Your task to perform on an android device: open app "The Home Depot" Image 0: 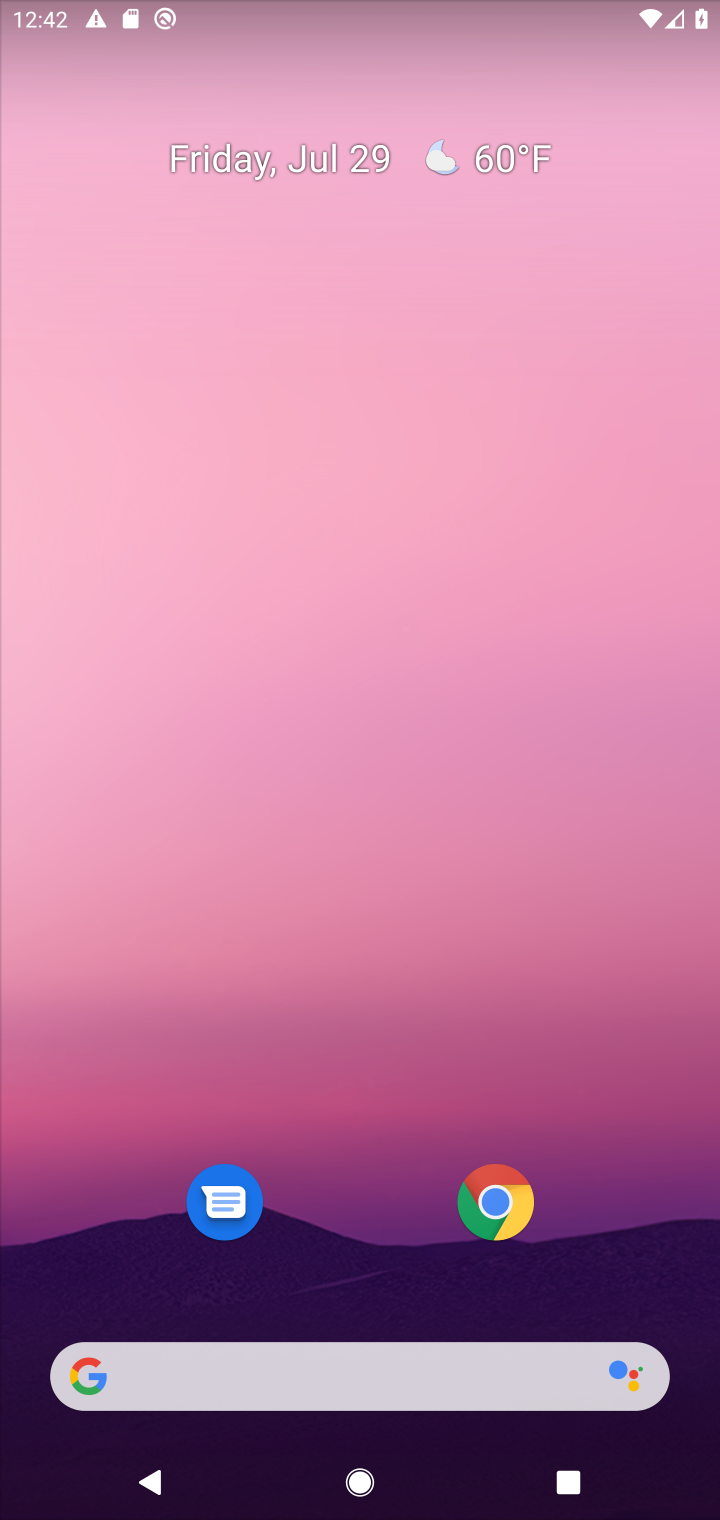
Step 0: click (212, 1377)
Your task to perform on an android device: open app "The Home Depot" Image 1: 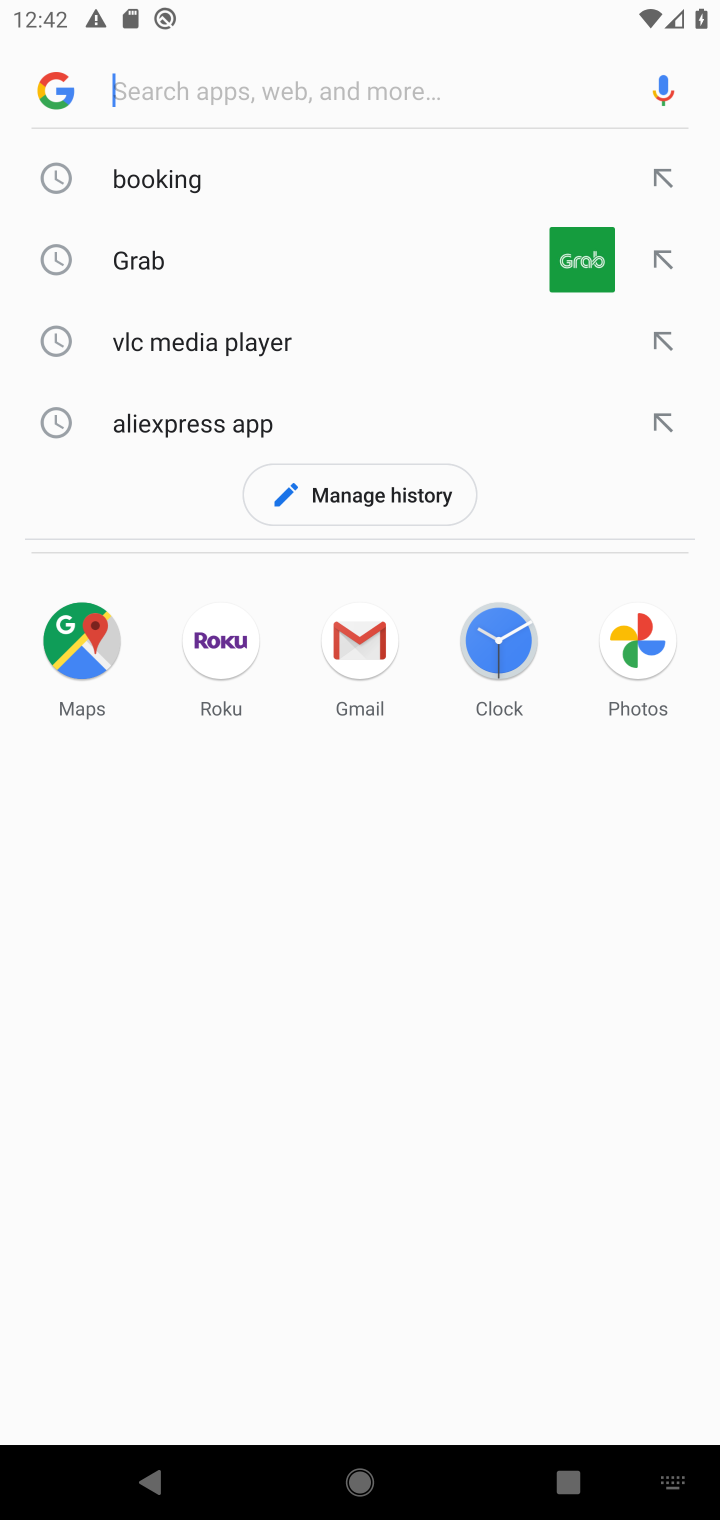
Step 1: type "home depot"
Your task to perform on an android device: open app "The Home Depot" Image 2: 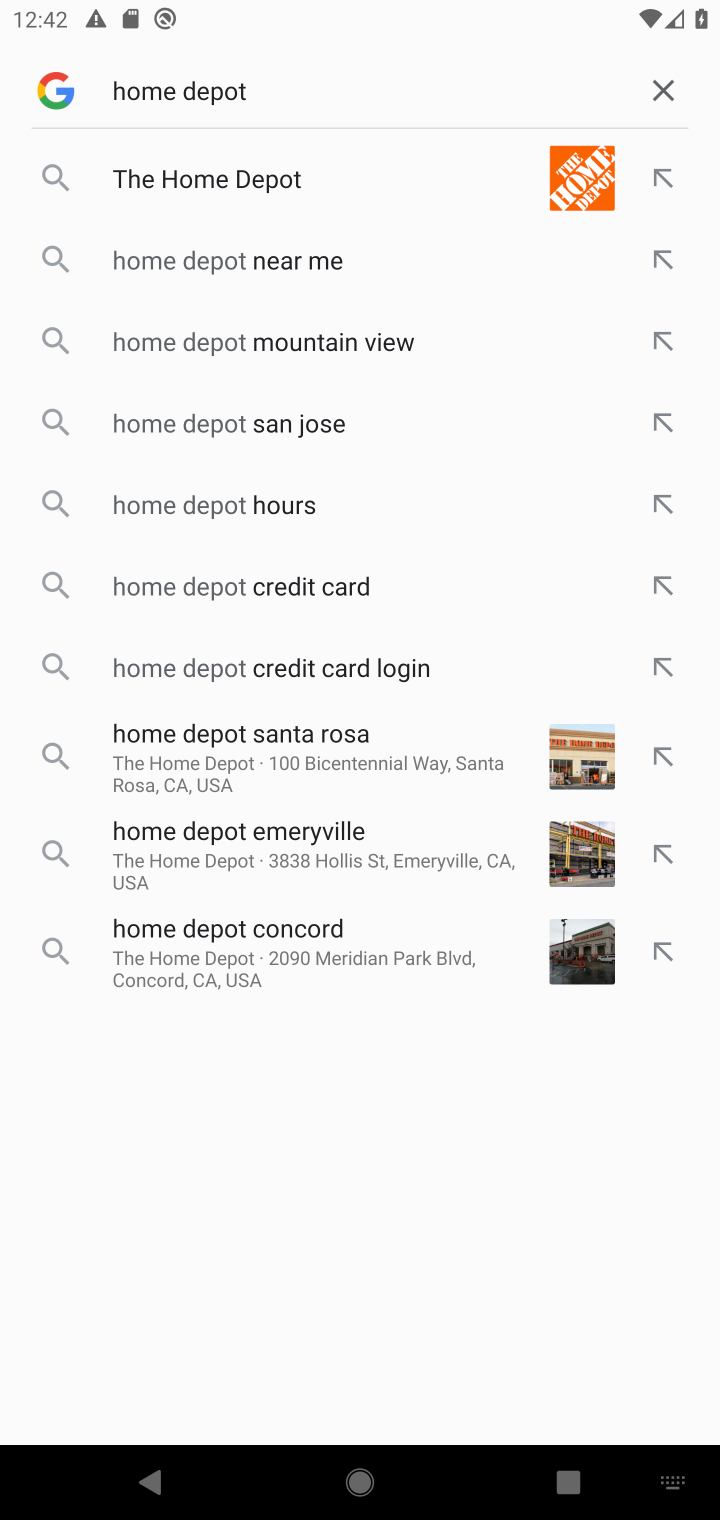
Step 2: click (333, 197)
Your task to perform on an android device: open app "The Home Depot" Image 3: 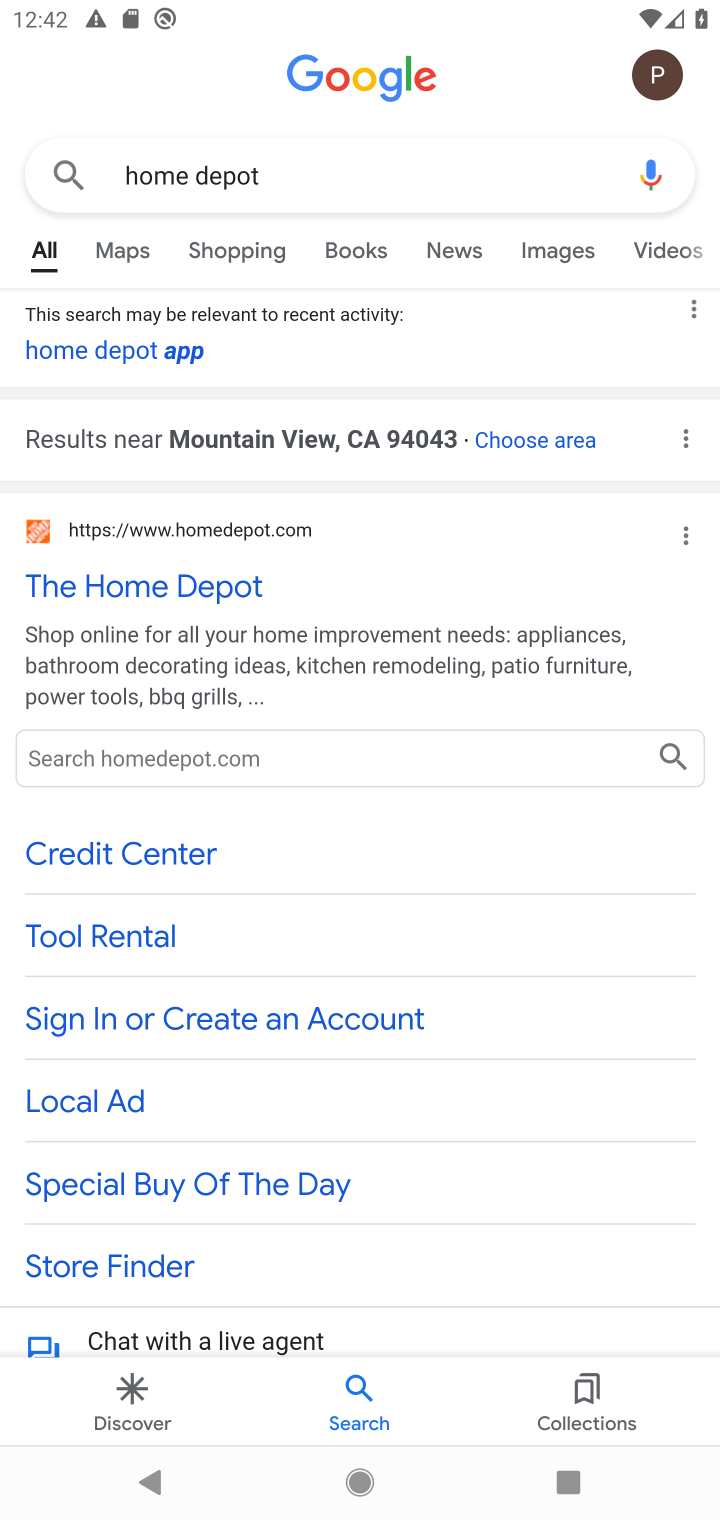
Step 3: drag from (477, 904) to (333, 257)
Your task to perform on an android device: open app "The Home Depot" Image 4: 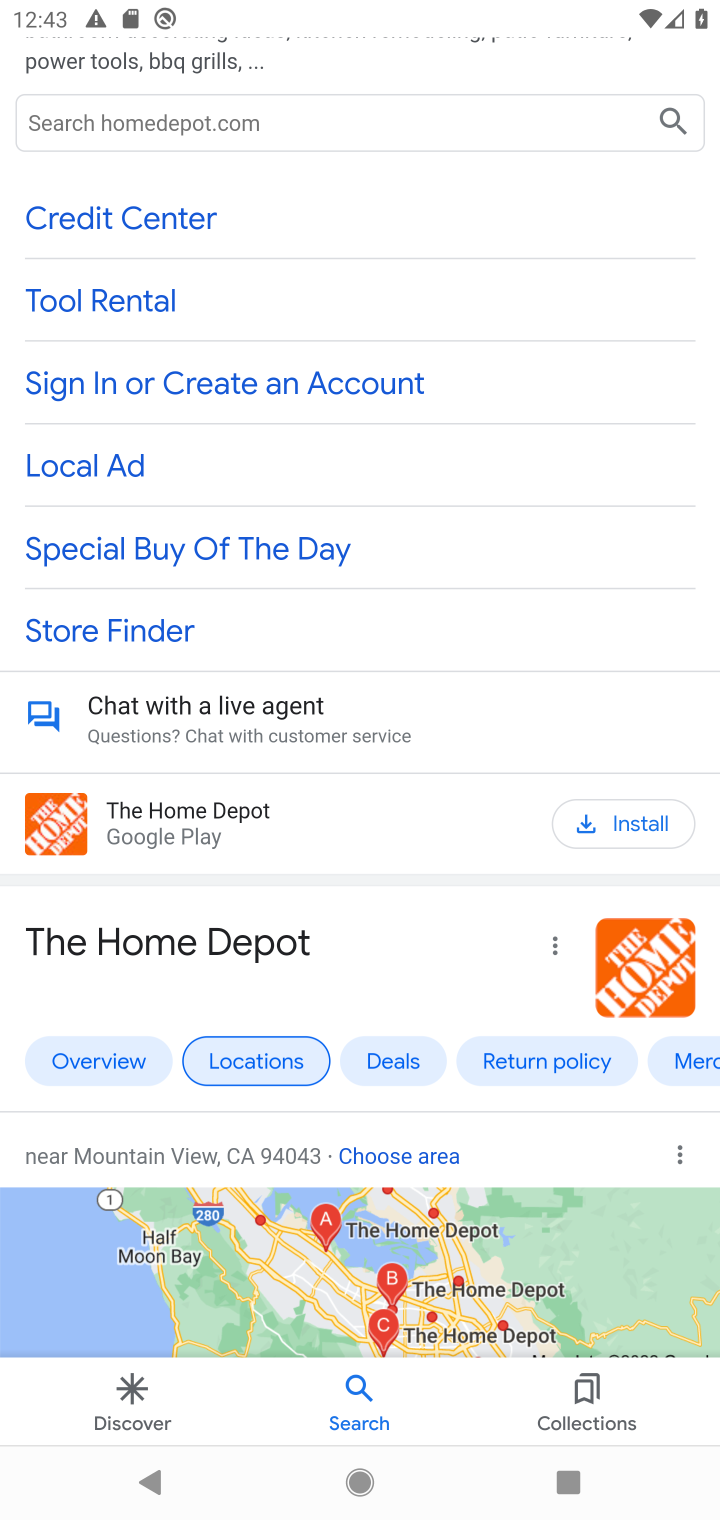
Step 4: click (628, 833)
Your task to perform on an android device: open app "The Home Depot" Image 5: 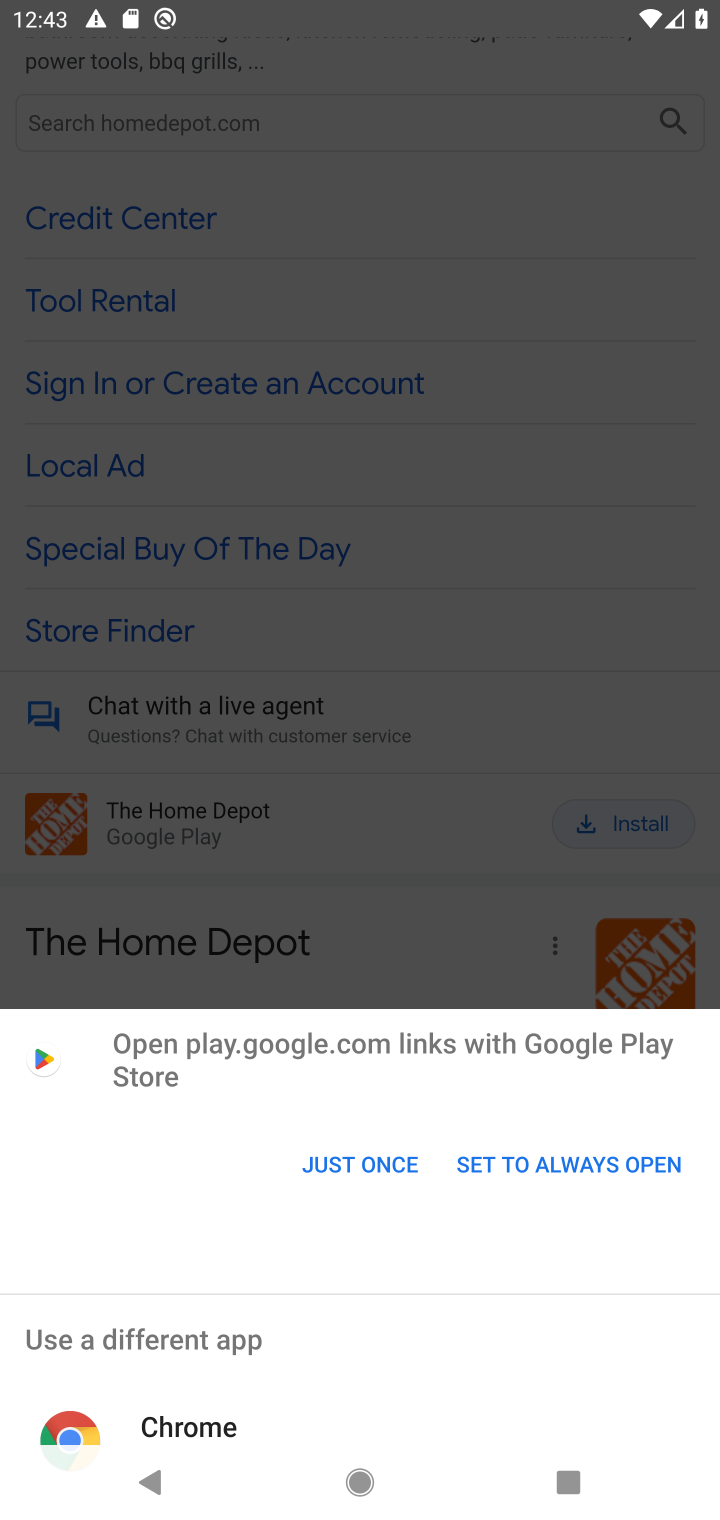
Step 5: click (332, 1169)
Your task to perform on an android device: open app "The Home Depot" Image 6: 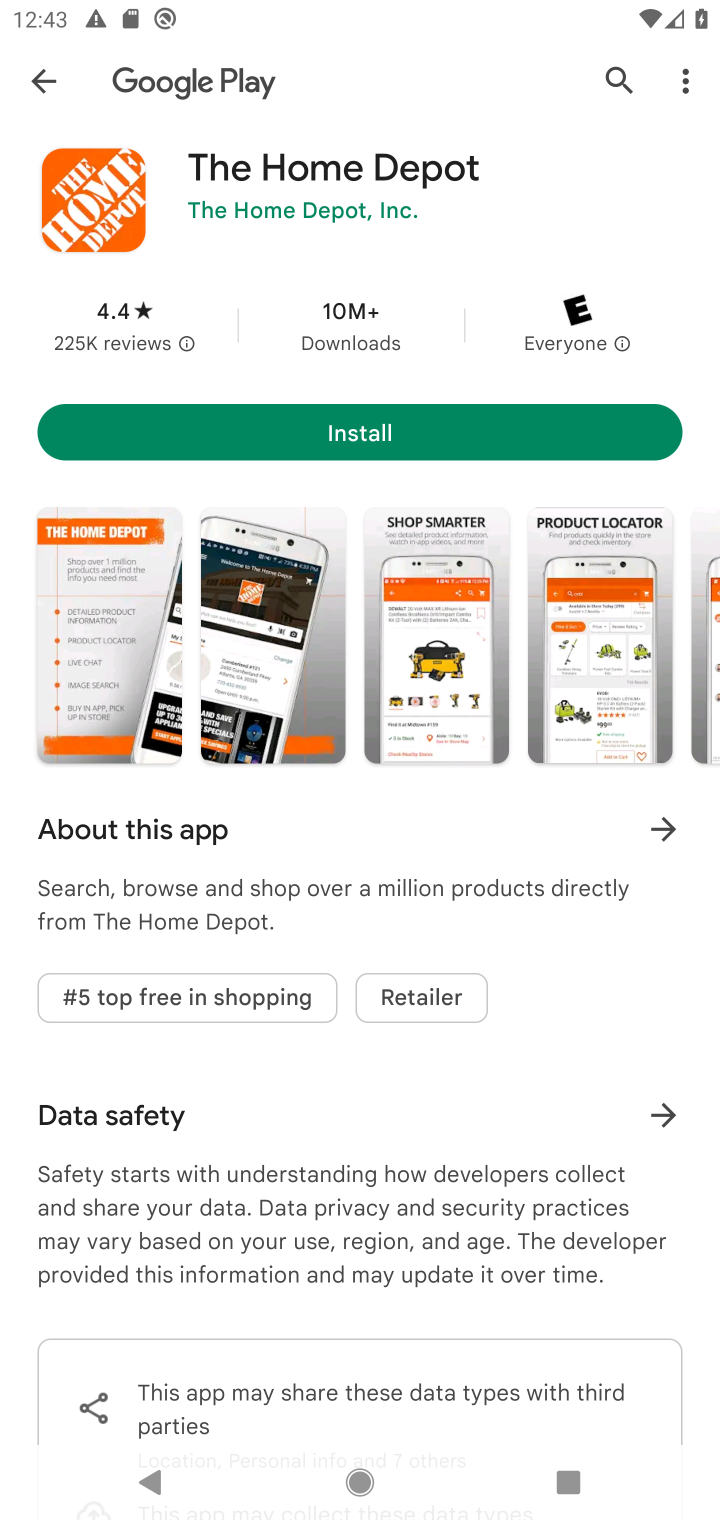
Step 6: click (320, 420)
Your task to perform on an android device: open app "The Home Depot" Image 7: 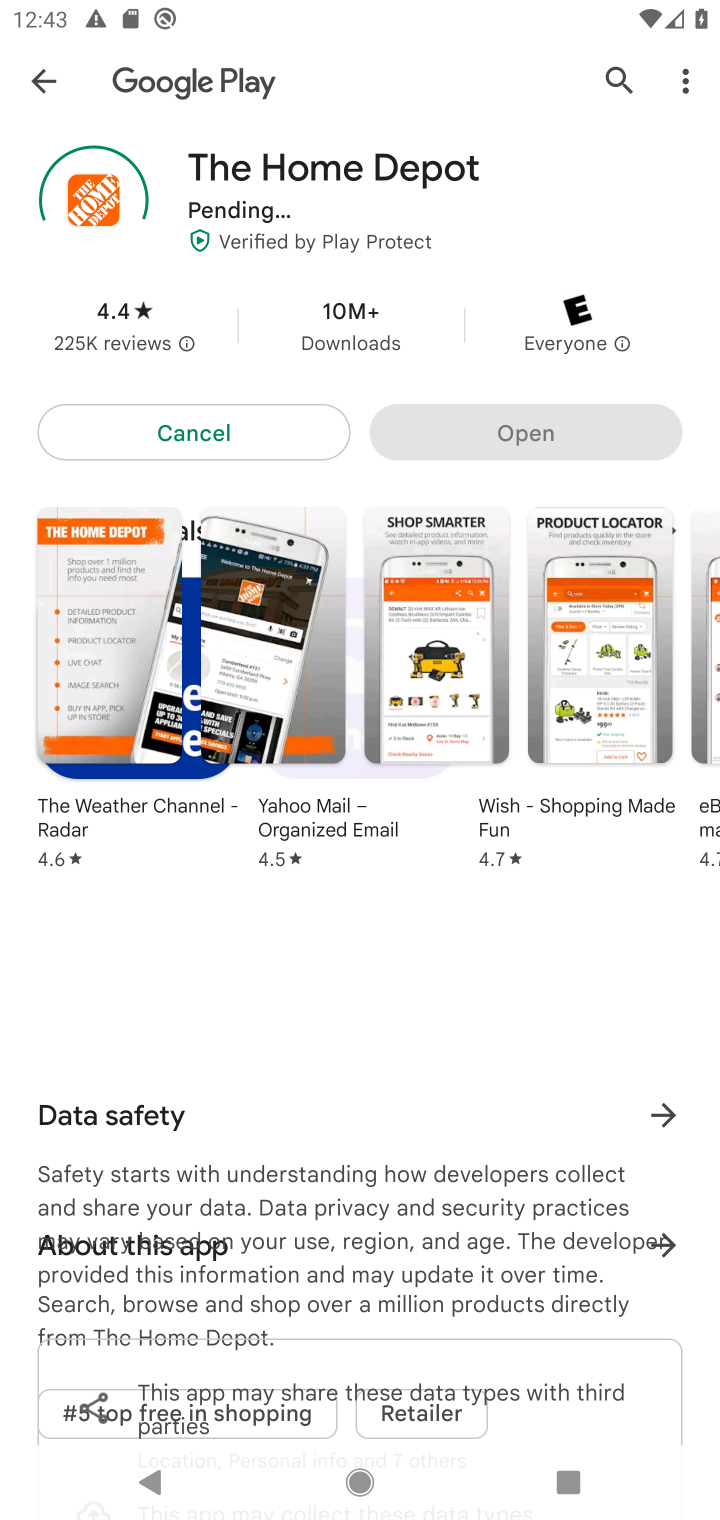
Step 7: task complete